Your task to perform on an android device: toggle notification dots Image 0: 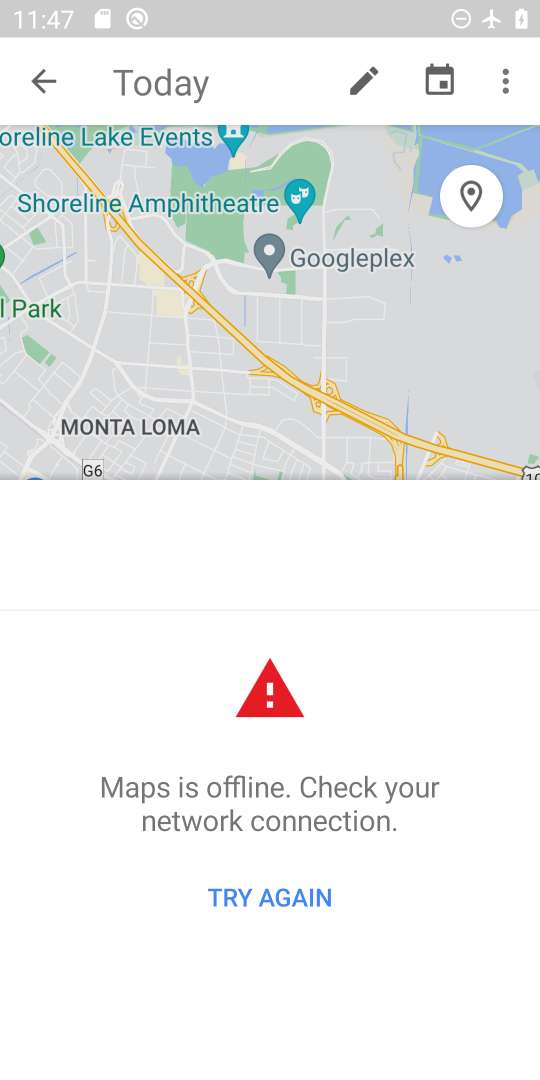
Step 0: press home button
Your task to perform on an android device: toggle notification dots Image 1: 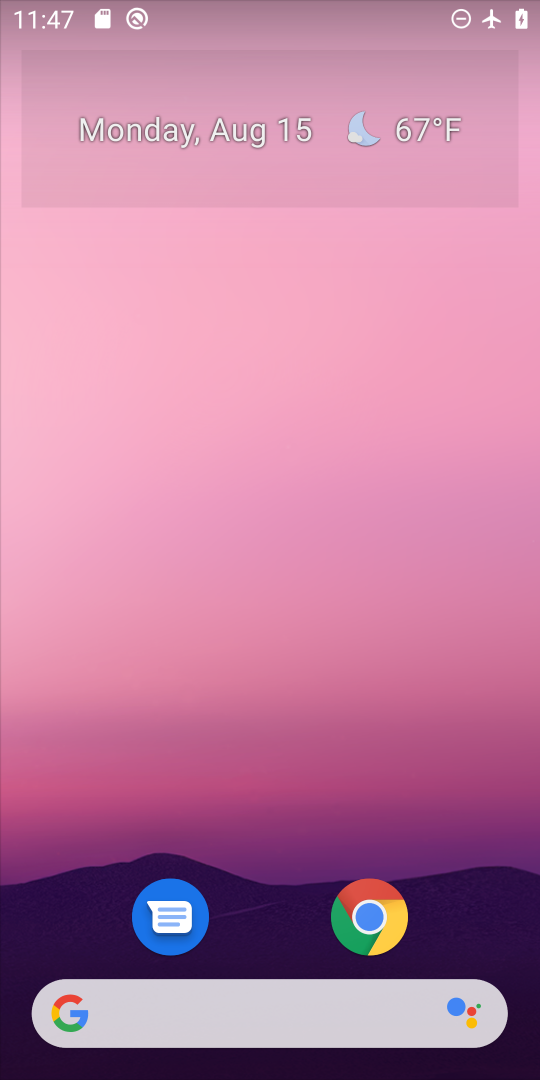
Step 1: drag from (275, 877) to (385, 10)
Your task to perform on an android device: toggle notification dots Image 2: 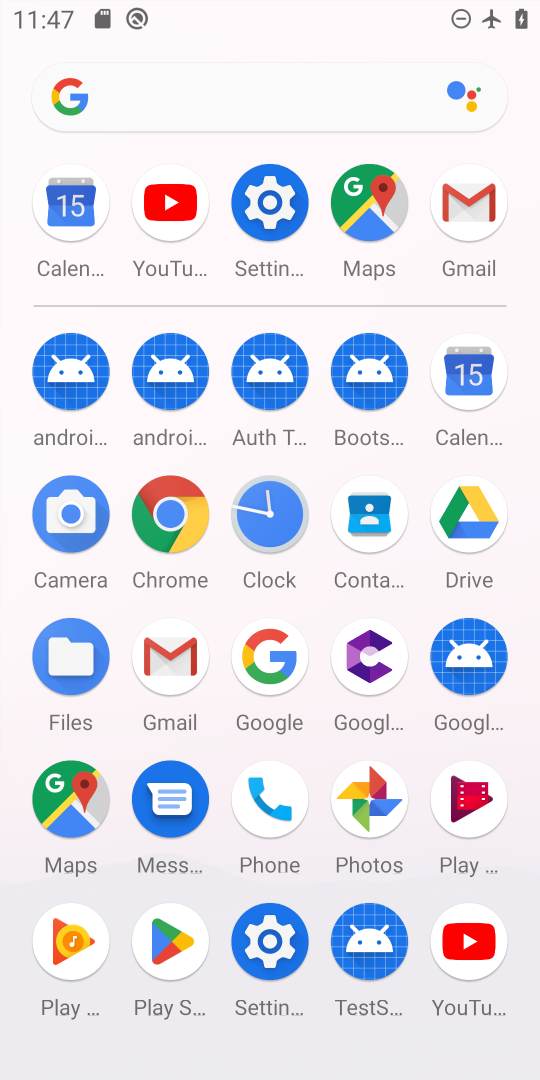
Step 2: click (270, 187)
Your task to perform on an android device: toggle notification dots Image 3: 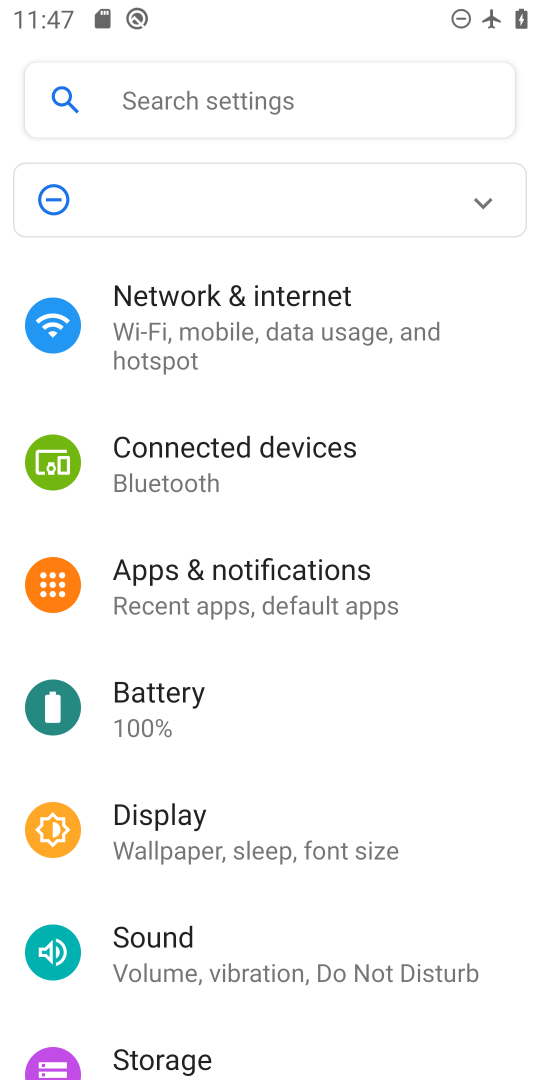
Step 3: click (282, 571)
Your task to perform on an android device: toggle notification dots Image 4: 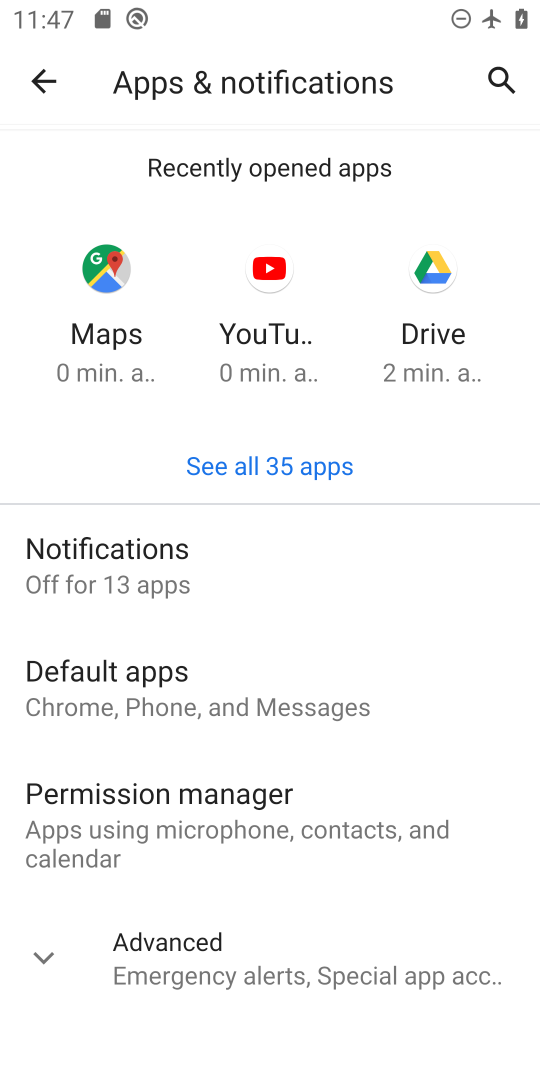
Step 4: click (168, 556)
Your task to perform on an android device: toggle notification dots Image 5: 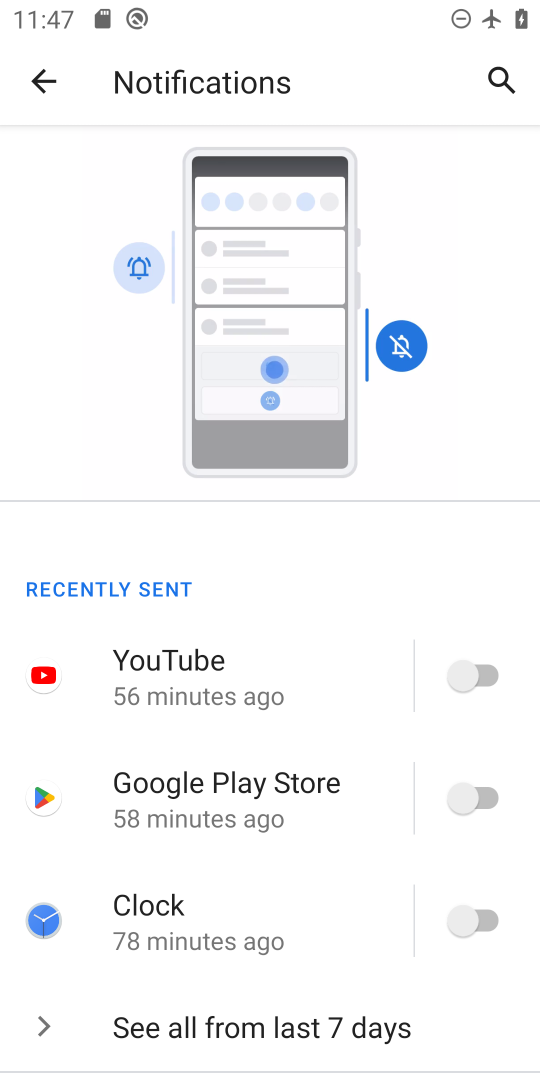
Step 5: drag from (240, 867) to (253, 46)
Your task to perform on an android device: toggle notification dots Image 6: 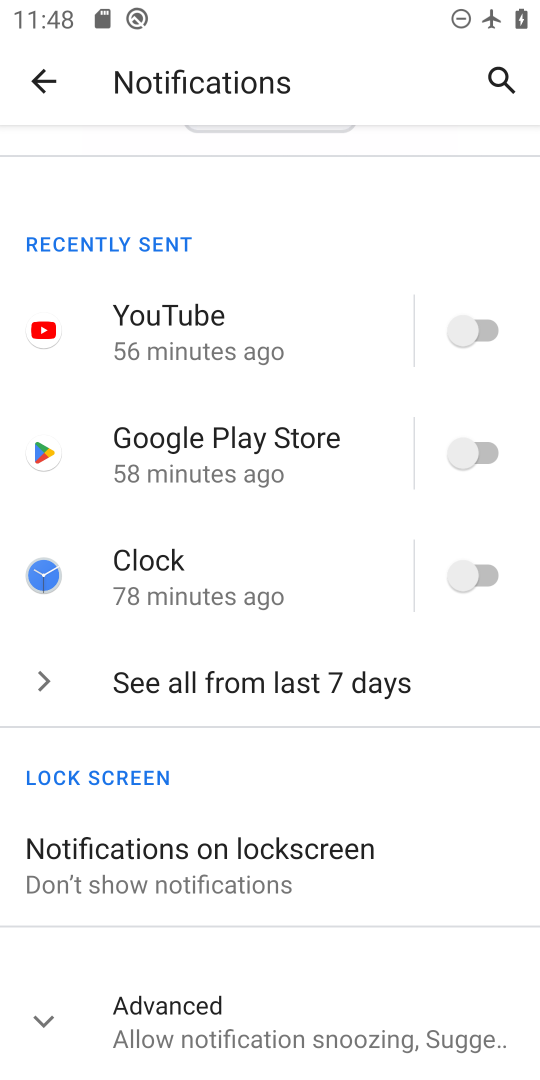
Step 6: click (49, 1019)
Your task to perform on an android device: toggle notification dots Image 7: 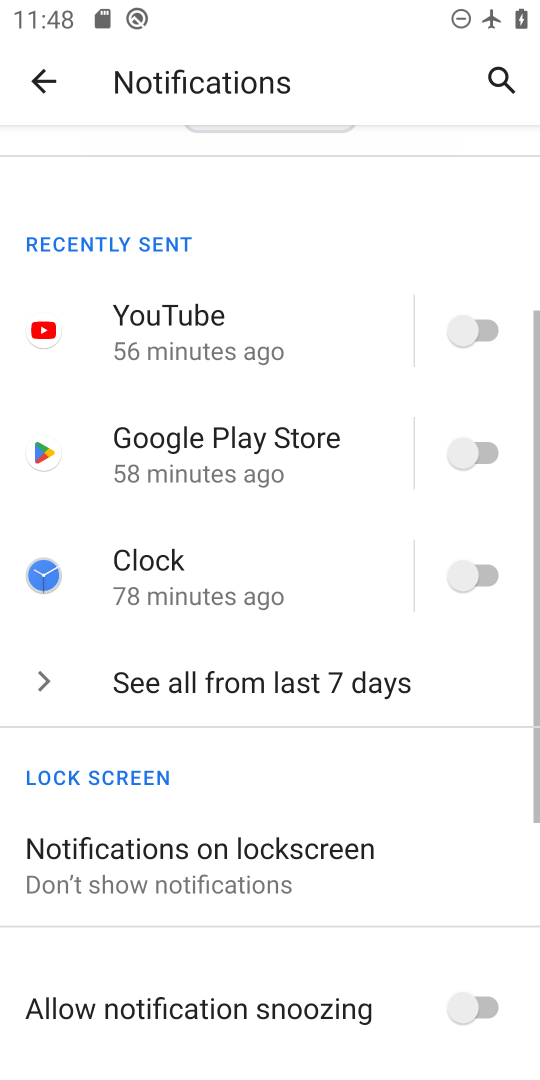
Step 7: drag from (285, 808) to (277, 259)
Your task to perform on an android device: toggle notification dots Image 8: 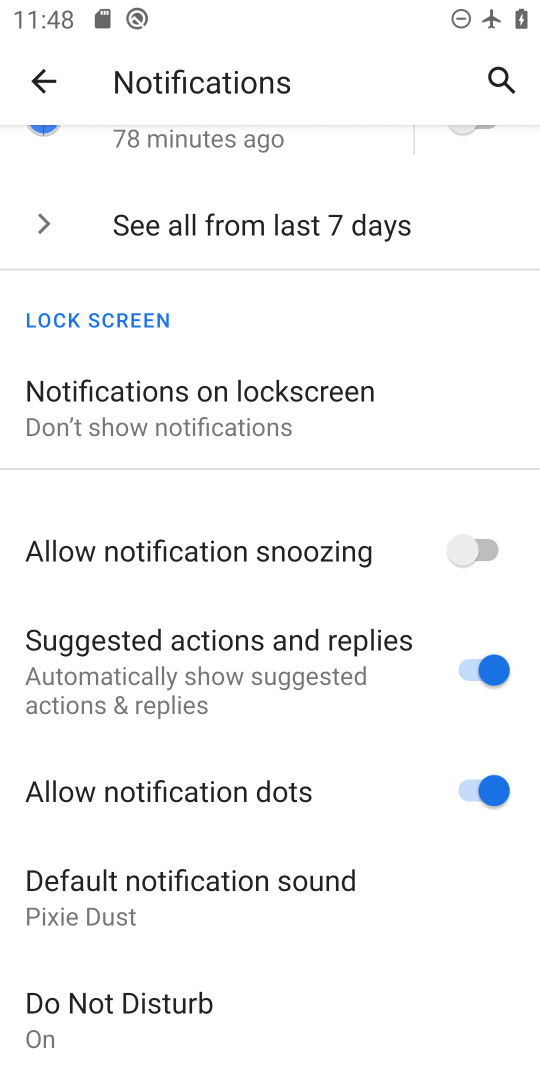
Step 8: click (482, 784)
Your task to perform on an android device: toggle notification dots Image 9: 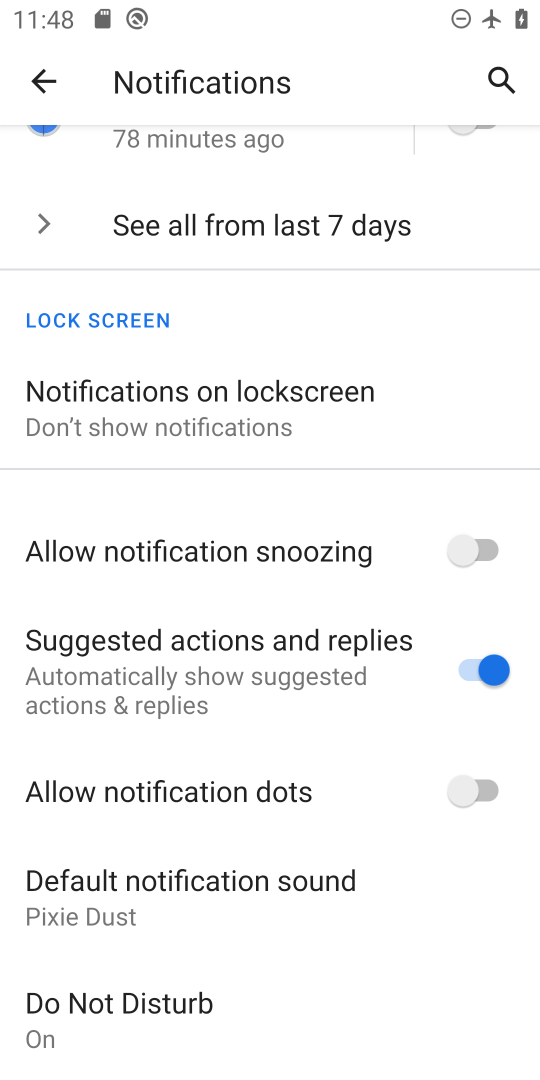
Step 9: task complete